Your task to perform on an android device: Search for rayovac triple a on newegg, select the first entry, and add it to the cart. Image 0: 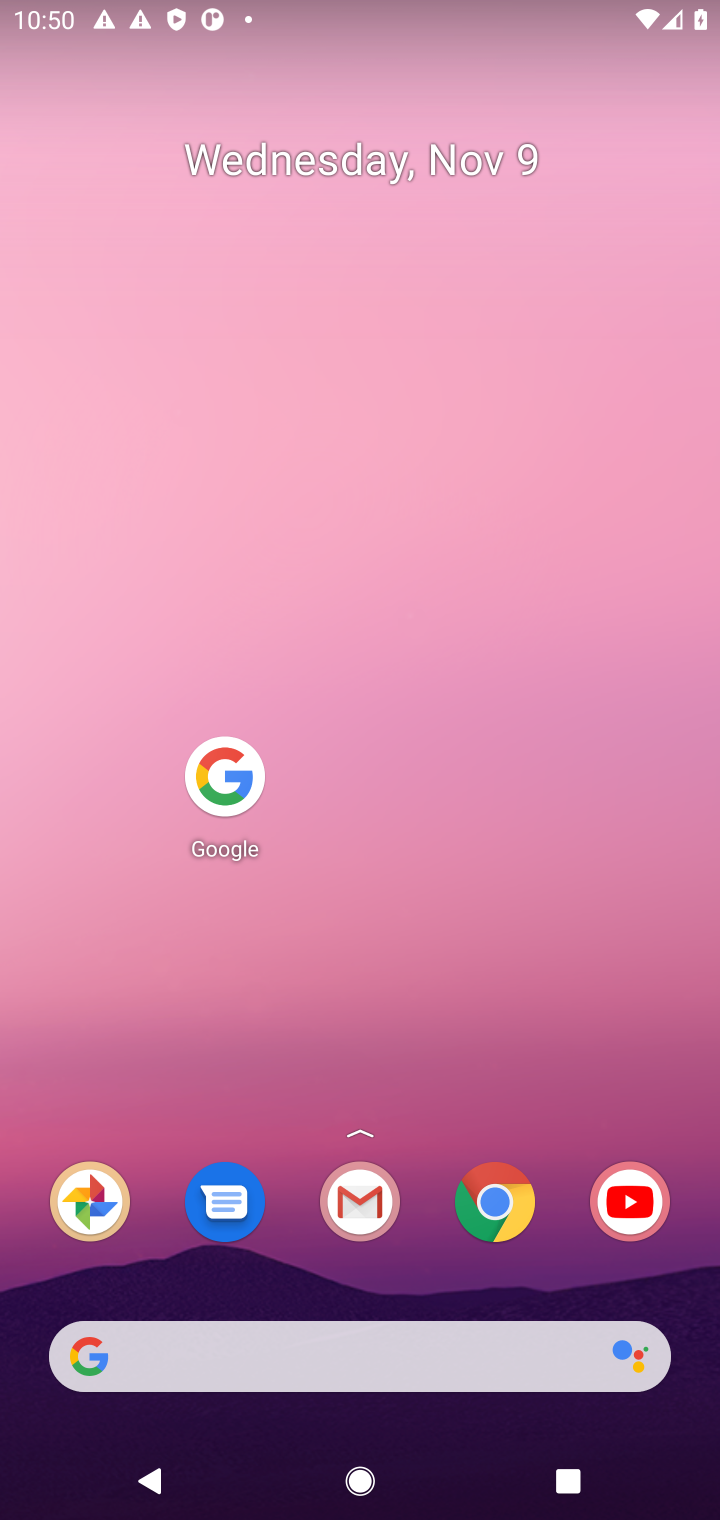
Step 0: press home button
Your task to perform on an android device: Search for rayovac triple a on newegg, select the first entry, and add it to the cart. Image 1: 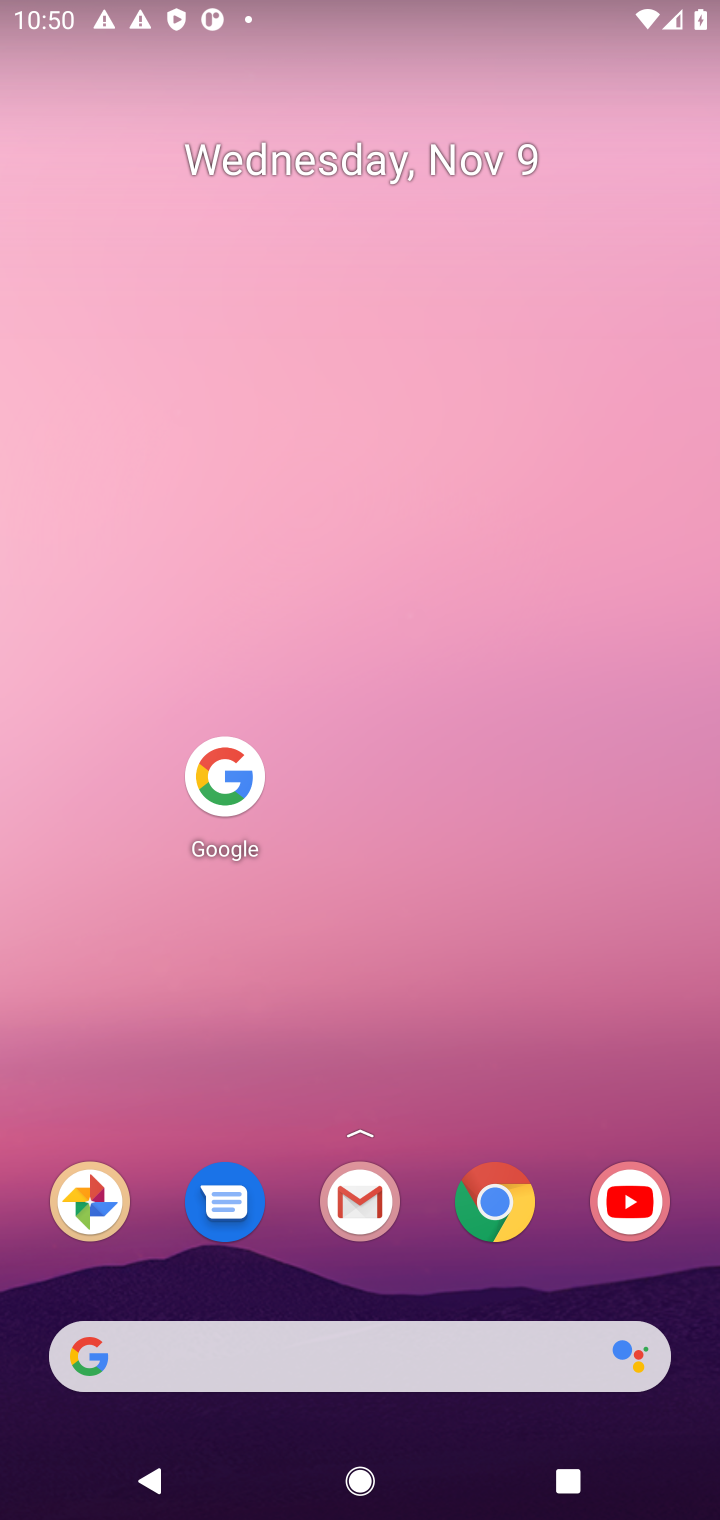
Step 1: click (222, 780)
Your task to perform on an android device: Search for rayovac triple a on newegg, select the first entry, and add it to the cart. Image 2: 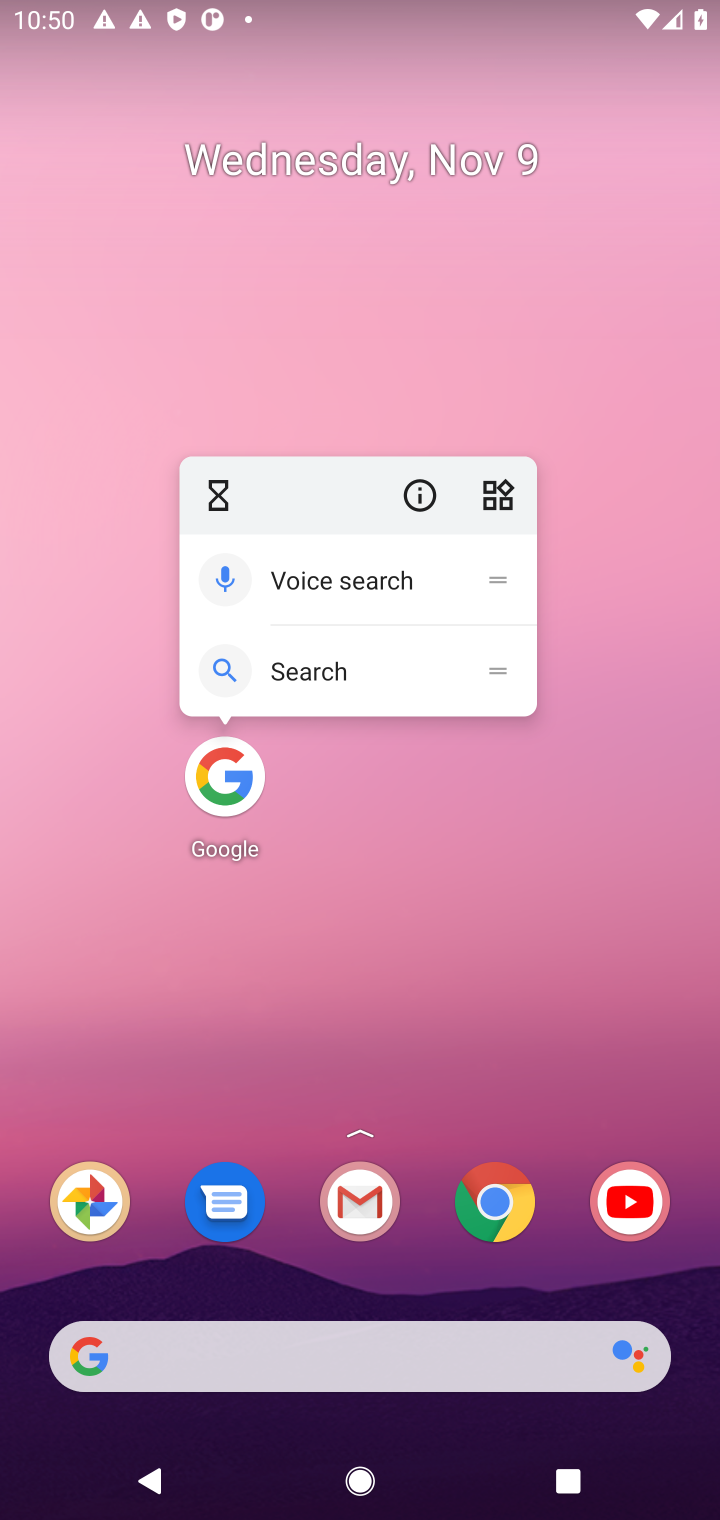
Step 2: click (222, 782)
Your task to perform on an android device: Search for rayovac triple a on newegg, select the first entry, and add it to the cart. Image 3: 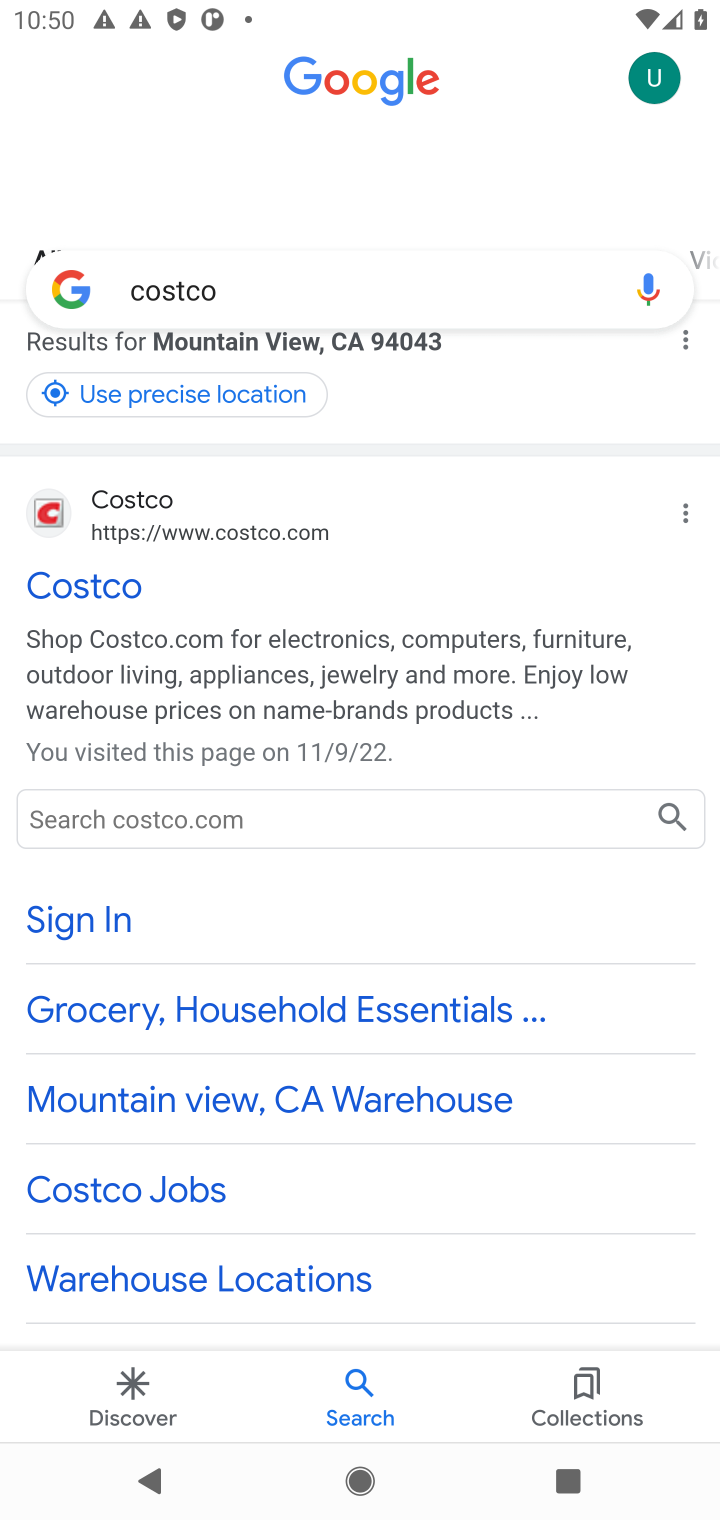
Step 3: click (257, 297)
Your task to perform on an android device: Search for rayovac triple a on newegg, select the first entry, and add it to the cart. Image 4: 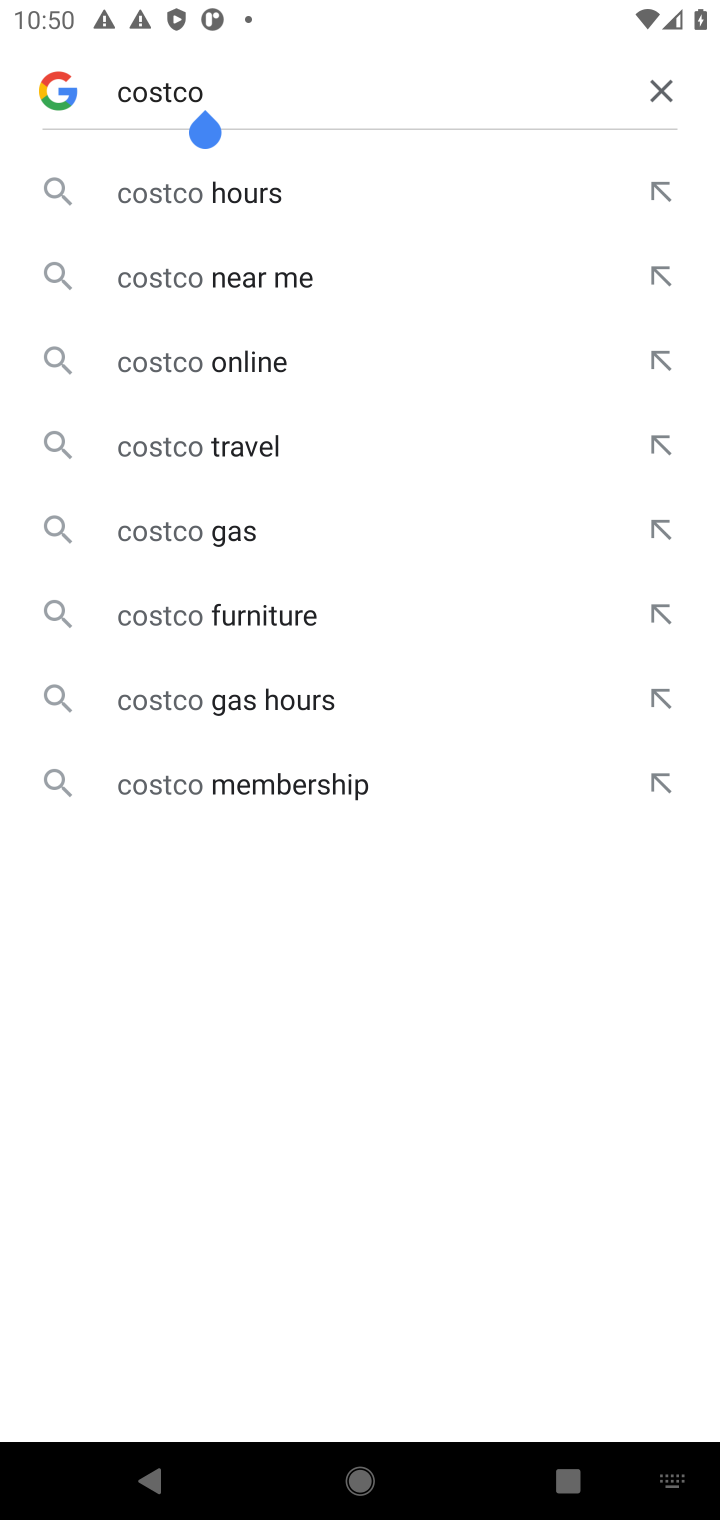
Step 4: click (654, 75)
Your task to perform on an android device: Search for rayovac triple a on newegg, select the first entry, and add it to the cart. Image 5: 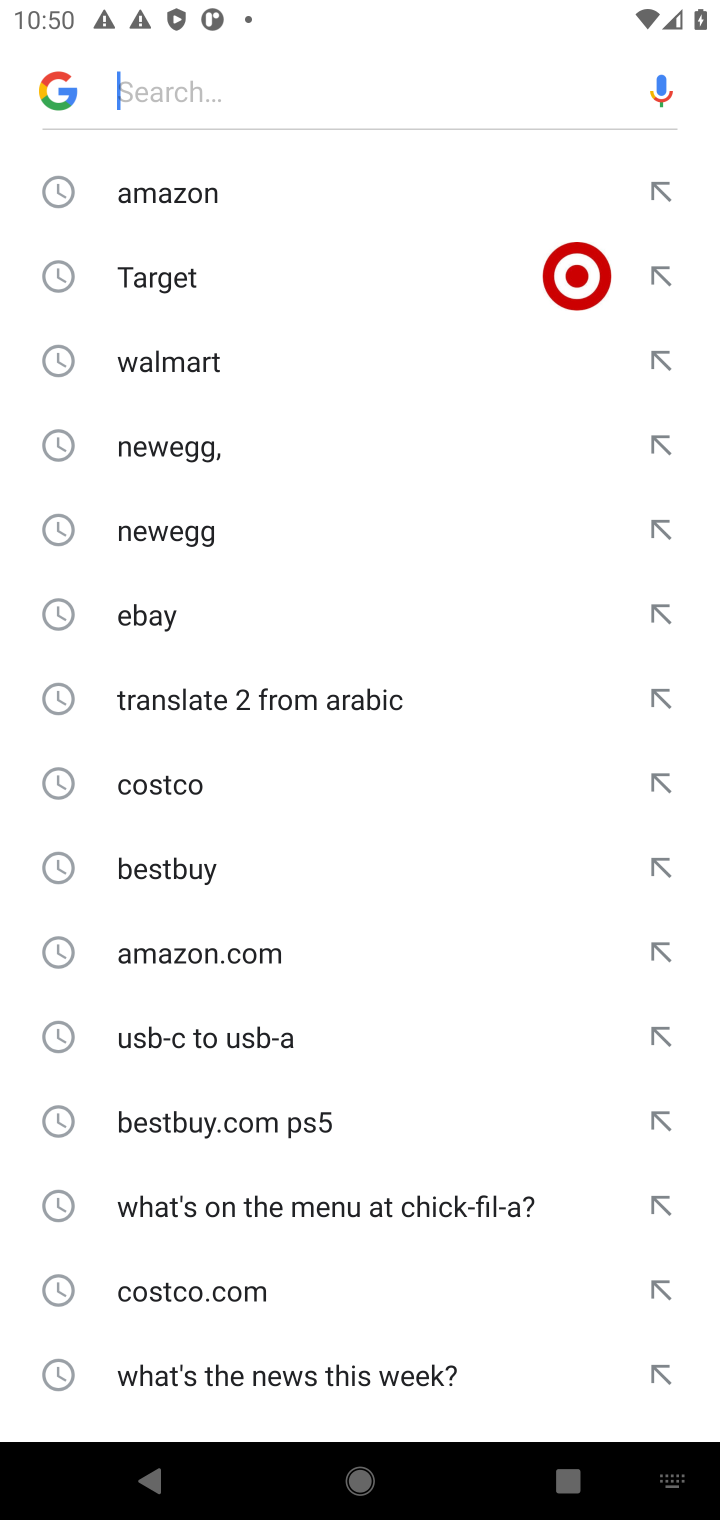
Step 5: click (134, 527)
Your task to perform on an android device: Search for rayovac triple a on newegg, select the first entry, and add it to the cart. Image 6: 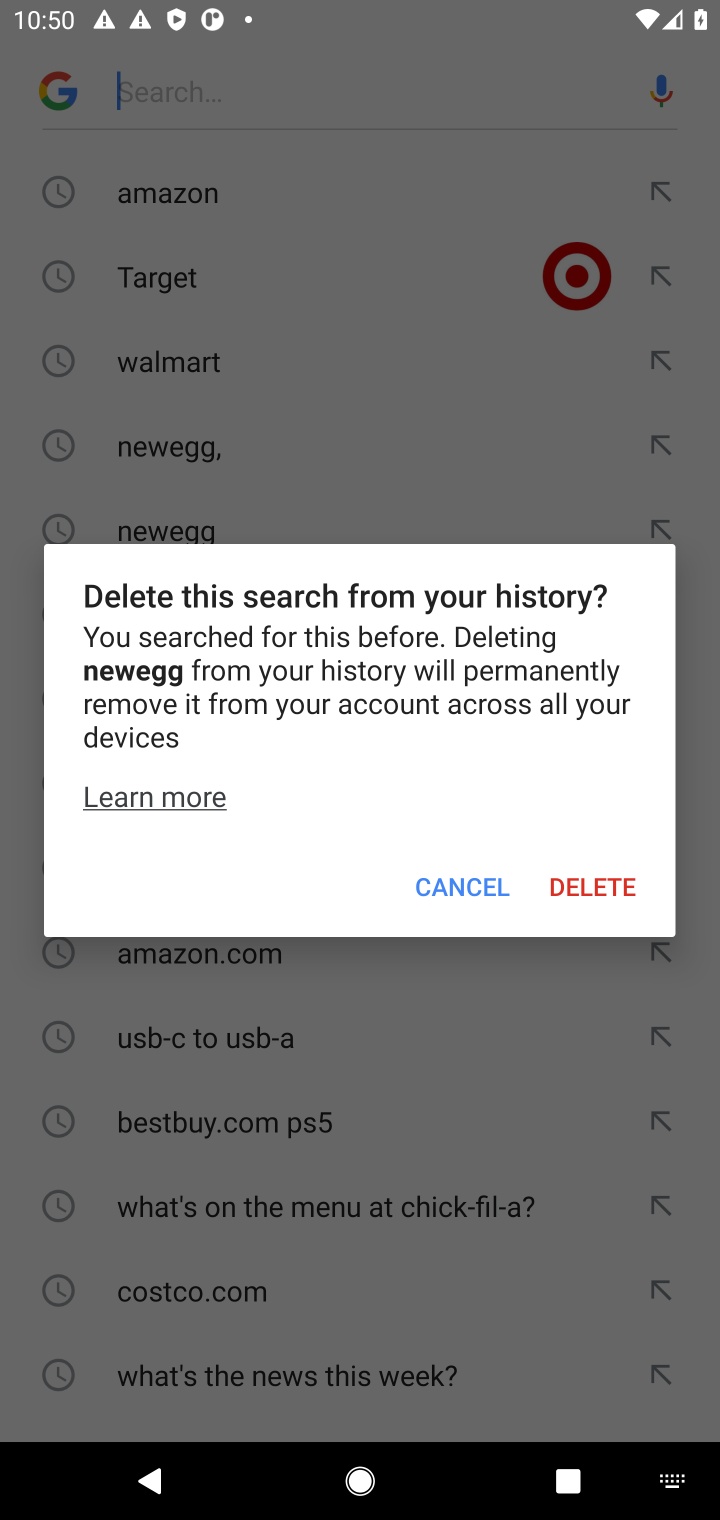
Step 6: click (128, 525)
Your task to perform on an android device: Search for rayovac triple a on newegg, select the first entry, and add it to the cart. Image 7: 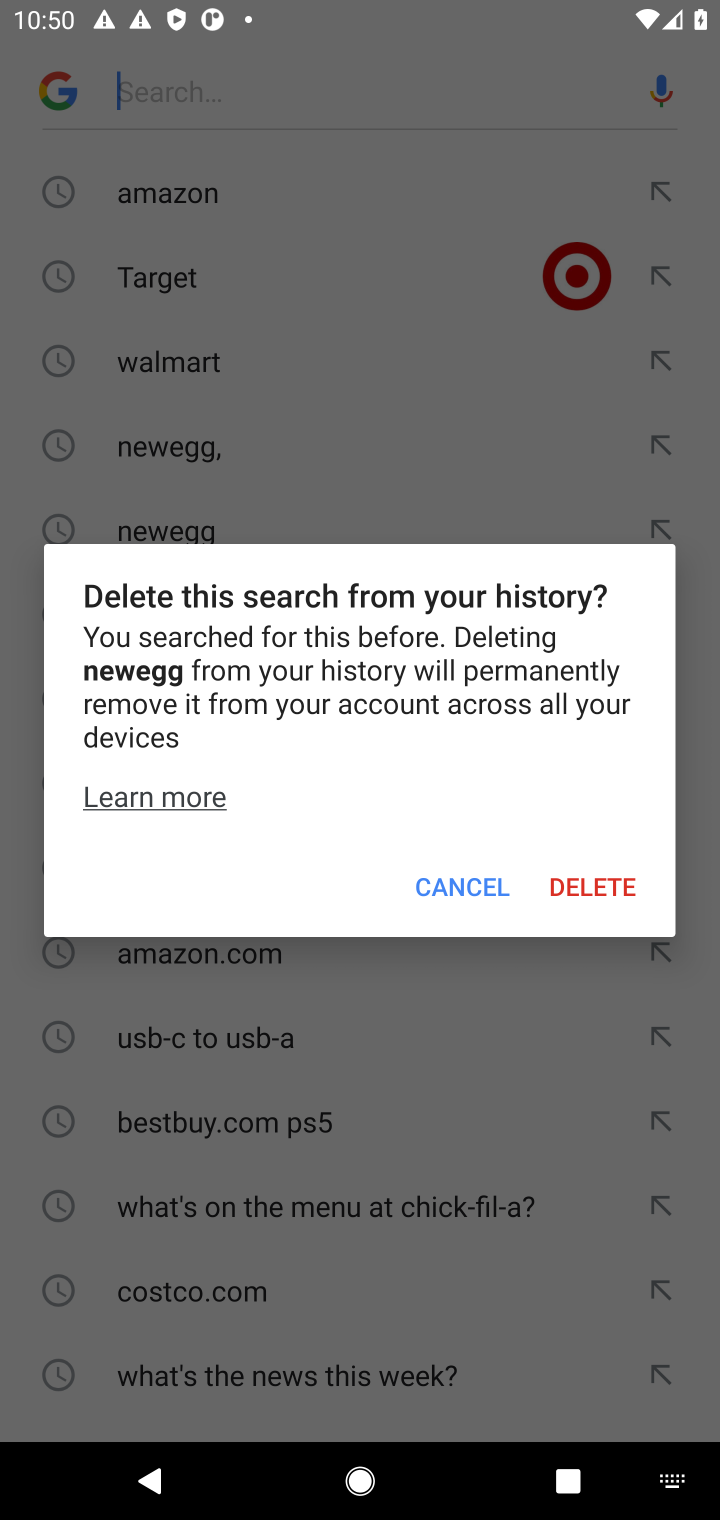
Step 7: click (155, 533)
Your task to perform on an android device: Search for rayovac triple a on newegg, select the first entry, and add it to the cart. Image 8: 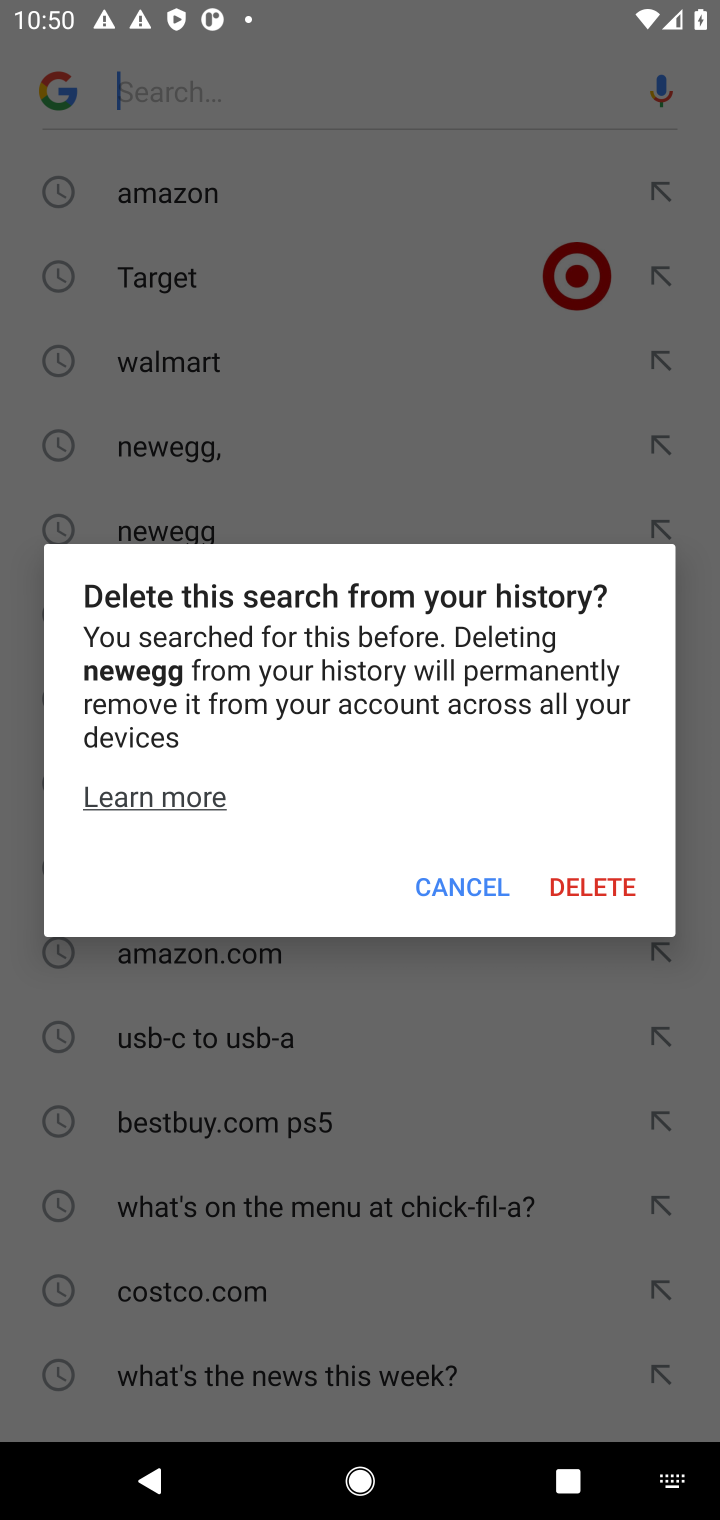
Step 8: click (468, 883)
Your task to perform on an android device: Search for rayovac triple a on newegg, select the first entry, and add it to the cart. Image 9: 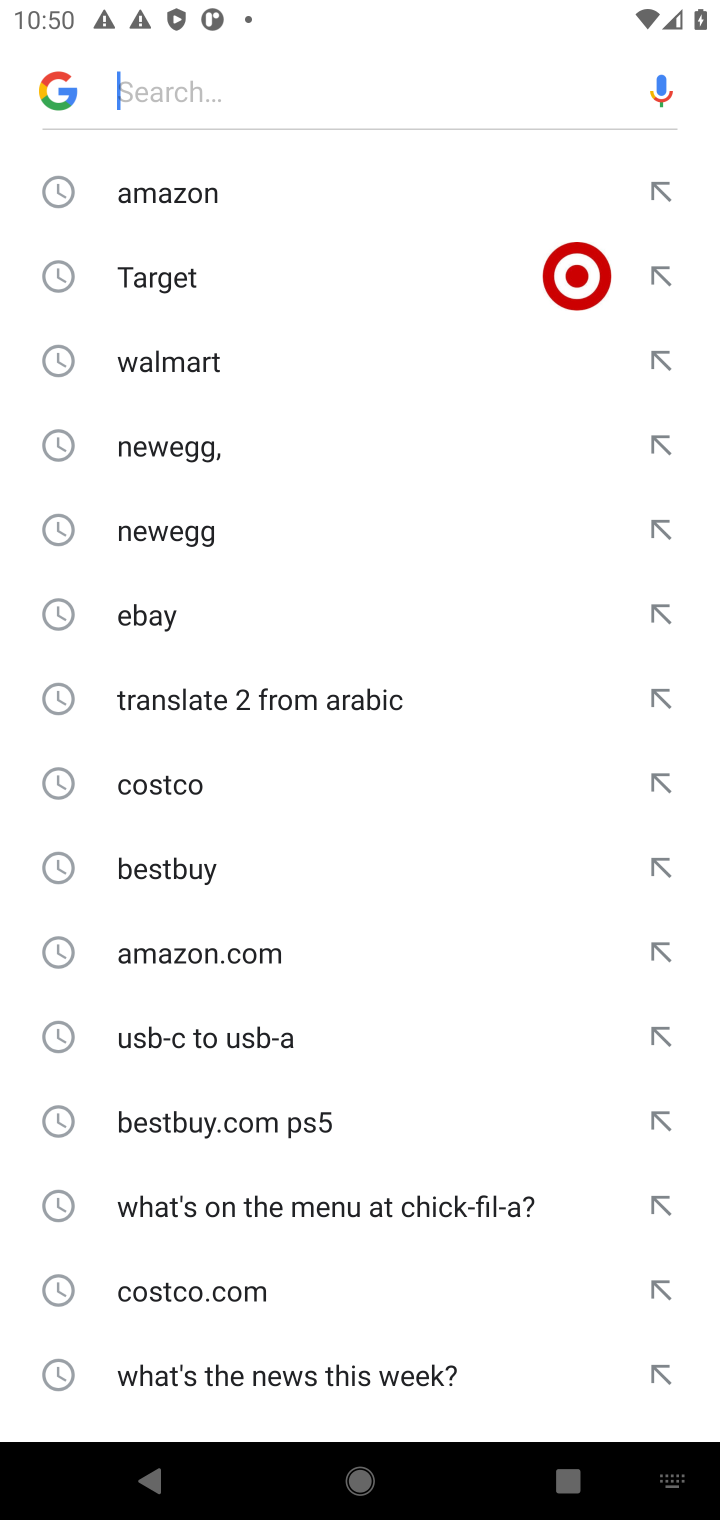
Step 9: click (155, 513)
Your task to perform on an android device: Search for rayovac triple a on newegg, select the first entry, and add it to the cart. Image 10: 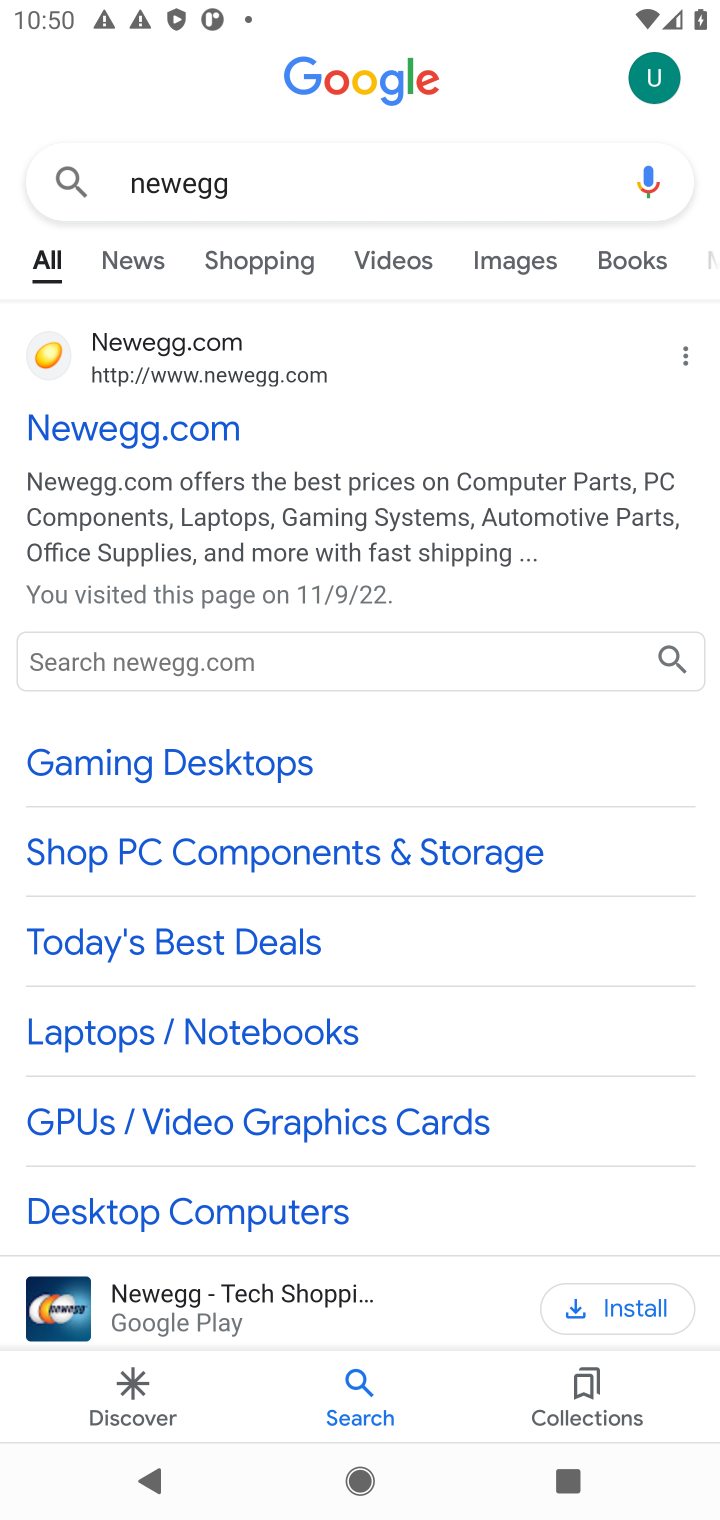
Step 10: click (110, 428)
Your task to perform on an android device: Search for rayovac triple a on newegg, select the first entry, and add it to the cart. Image 11: 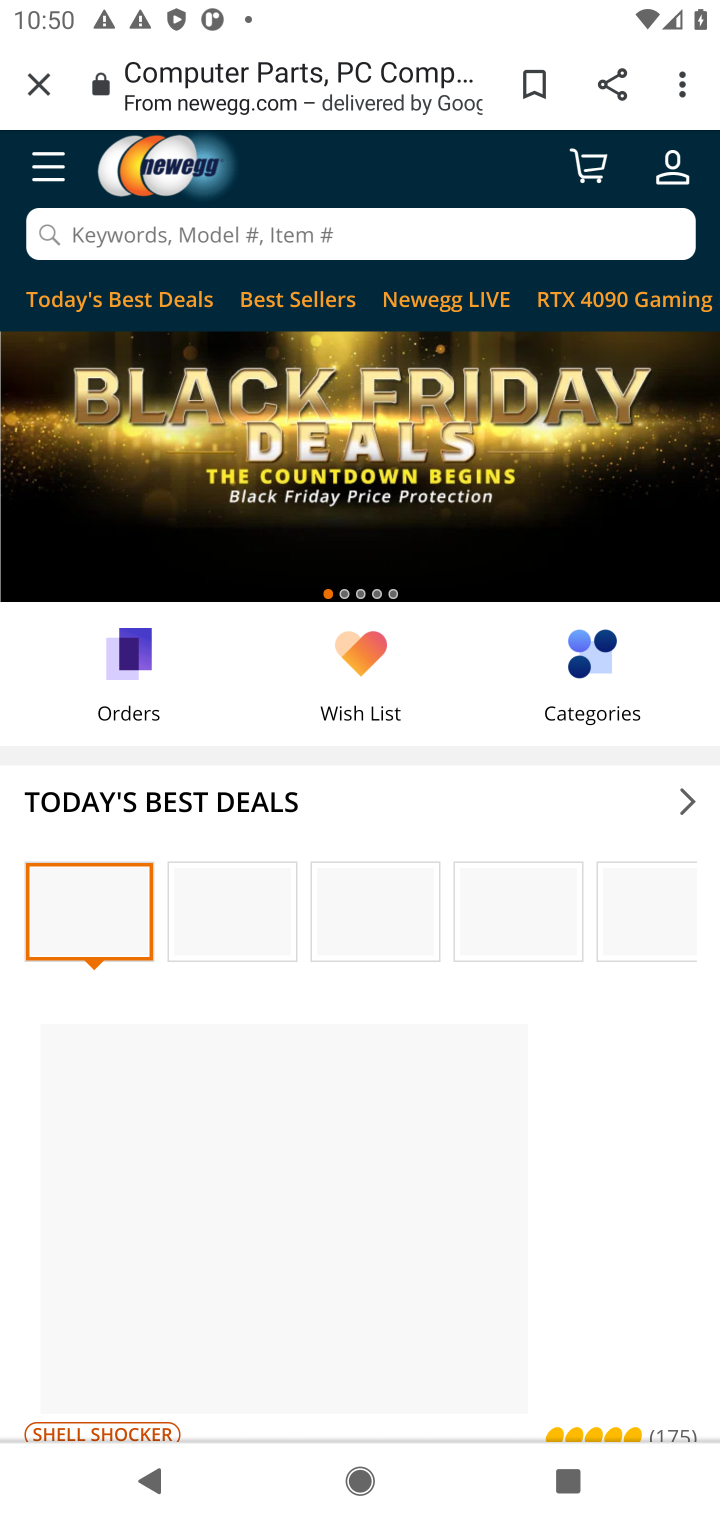
Step 11: click (396, 210)
Your task to perform on an android device: Search for rayovac triple a on newegg, select the first entry, and add it to the cart. Image 12: 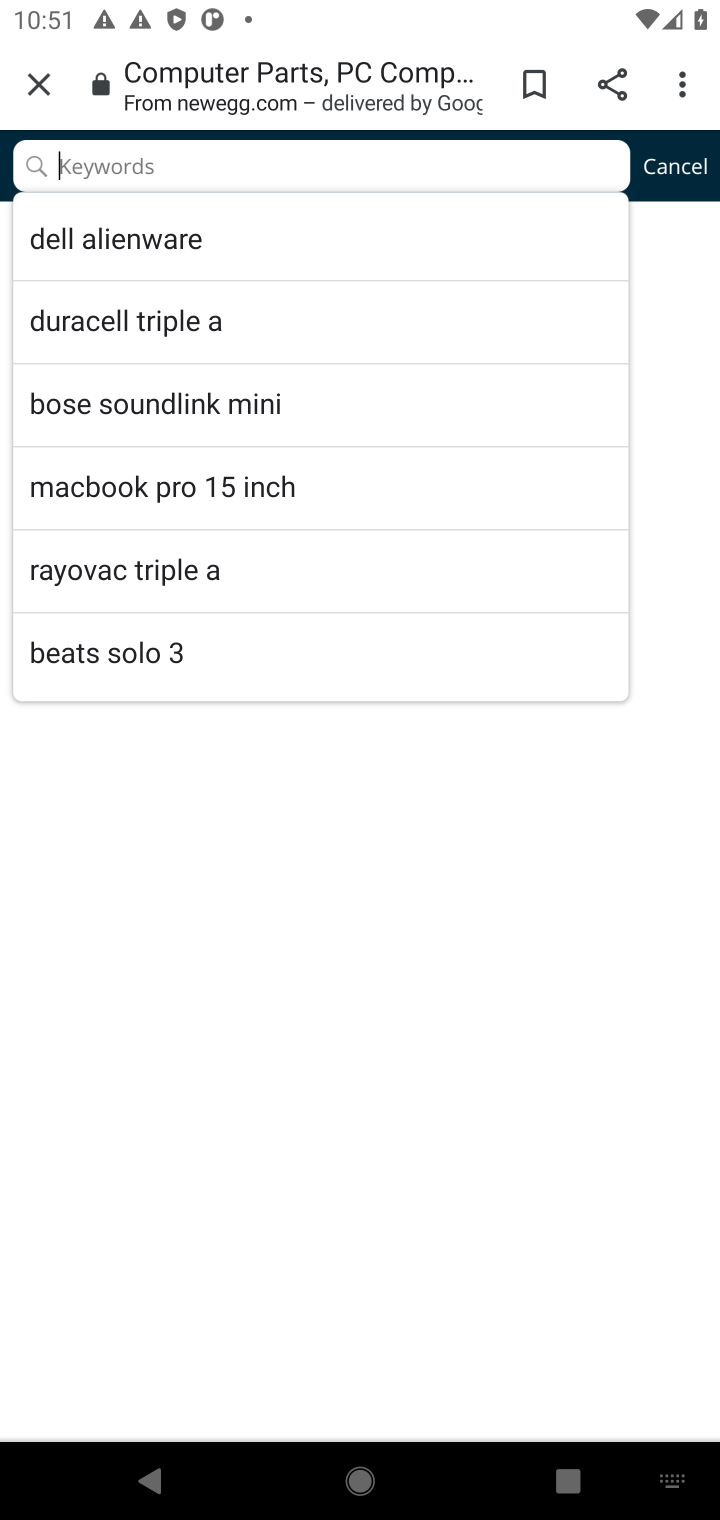
Step 12: type "rayovac triple a"
Your task to perform on an android device: Search for rayovac triple a on newegg, select the first entry, and add it to the cart. Image 13: 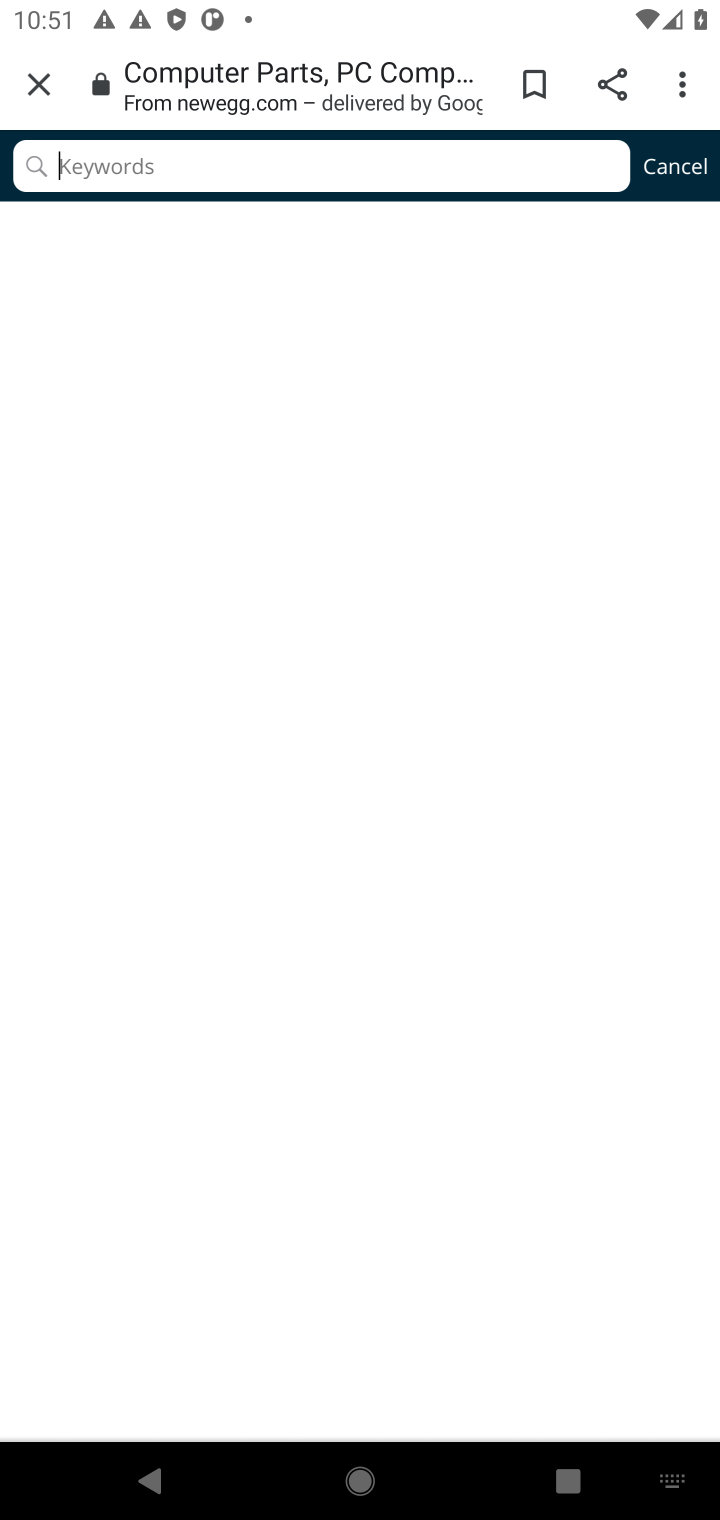
Step 13: press enter
Your task to perform on an android device: Search for rayovac triple a on newegg, select the first entry, and add it to the cart. Image 14: 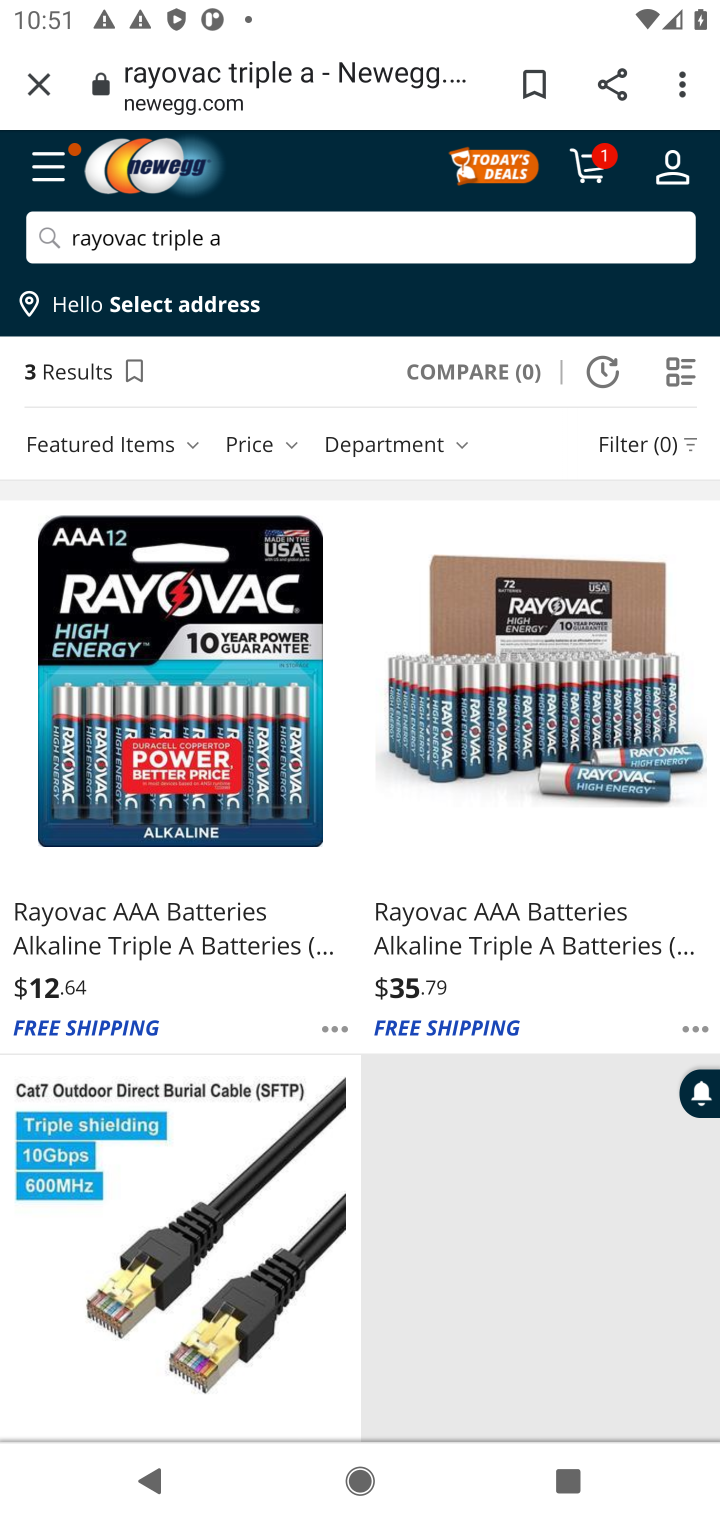
Step 14: click (50, 753)
Your task to perform on an android device: Search for rayovac triple a on newegg, select the first entry, and add it to the cart. Image 15: 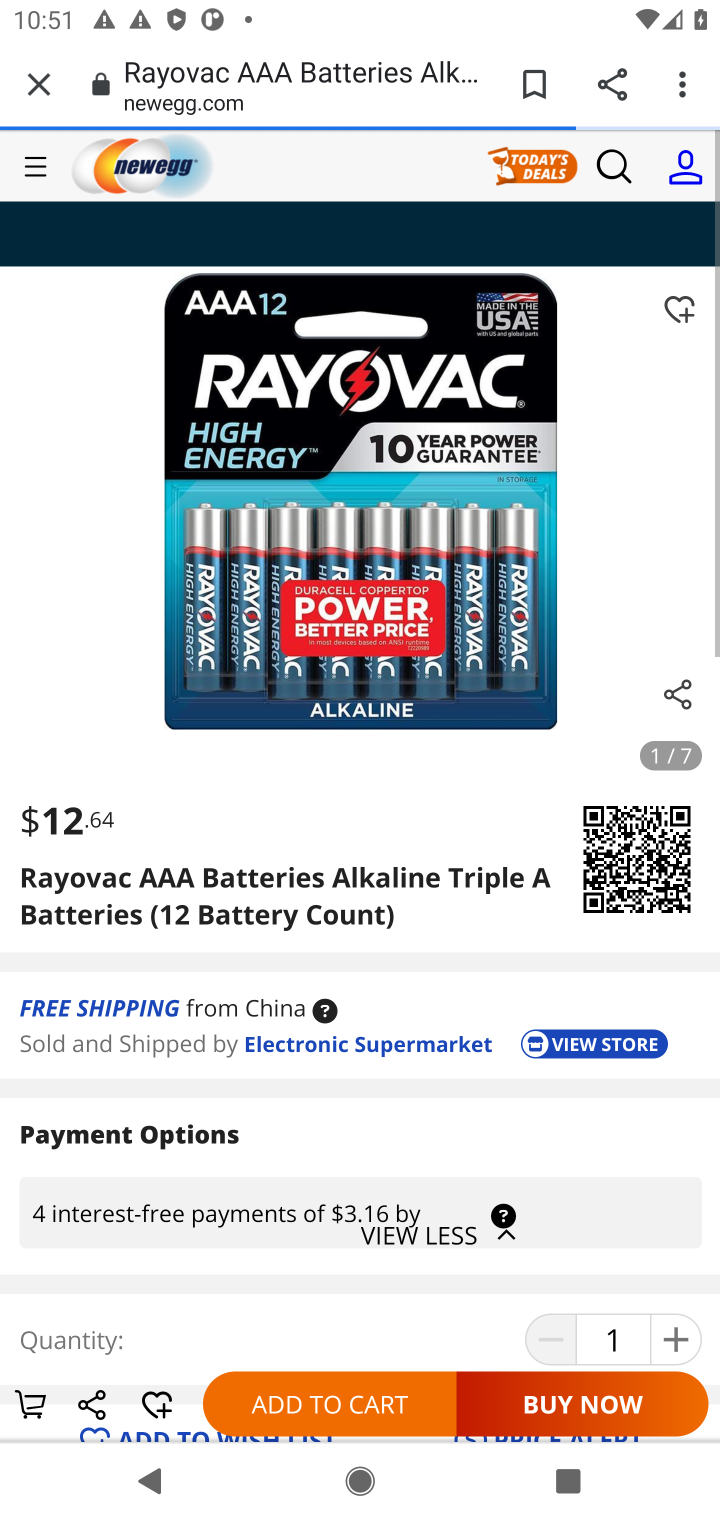
Step 15: click (154, 664)
Your task to perform on an android device: Search for rayovac triple a on newegg, select the first entry, and add it to the cart. Image 16: 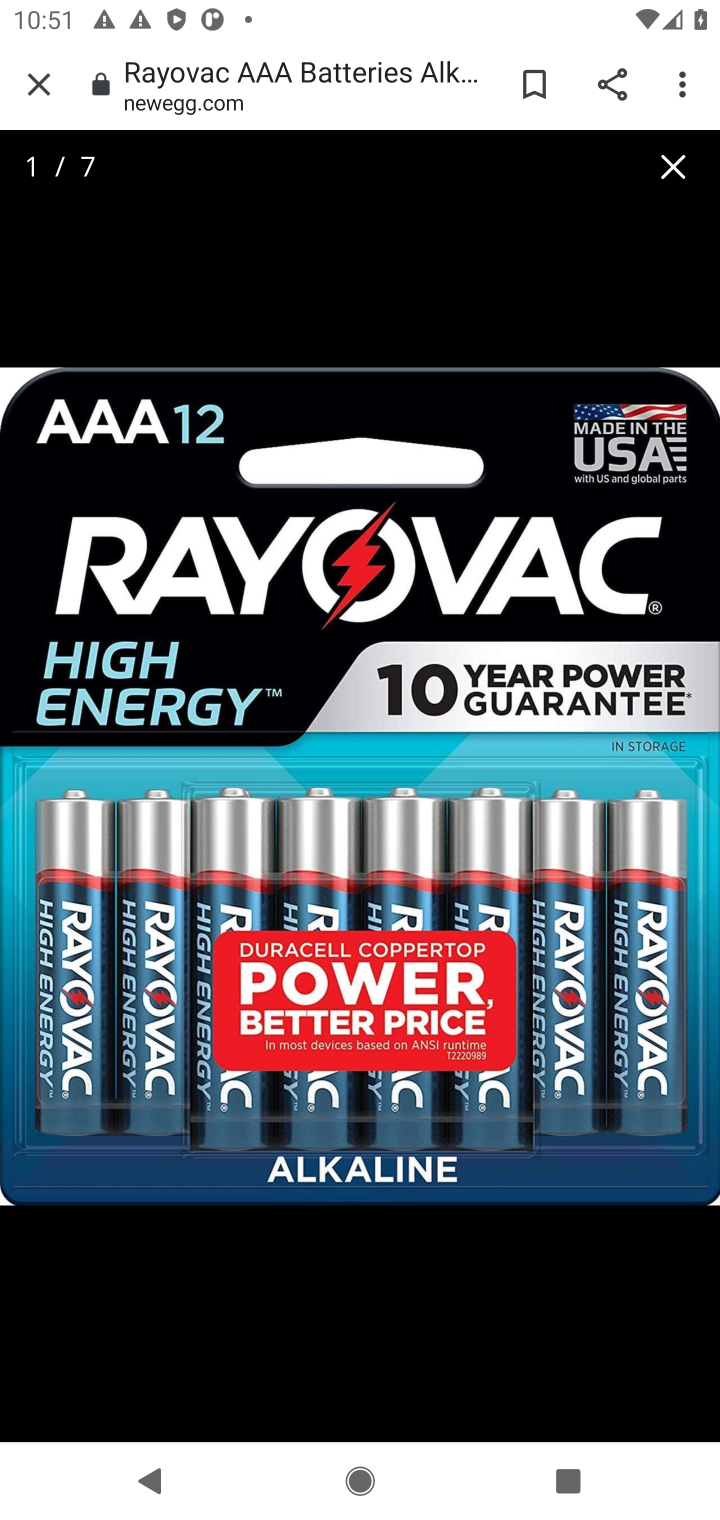
Step 16: click (675, 166)
Your task to perform on an android device: Search for rayovac triple a on newegg, select the first entry, and add it to the cart. Image 17: 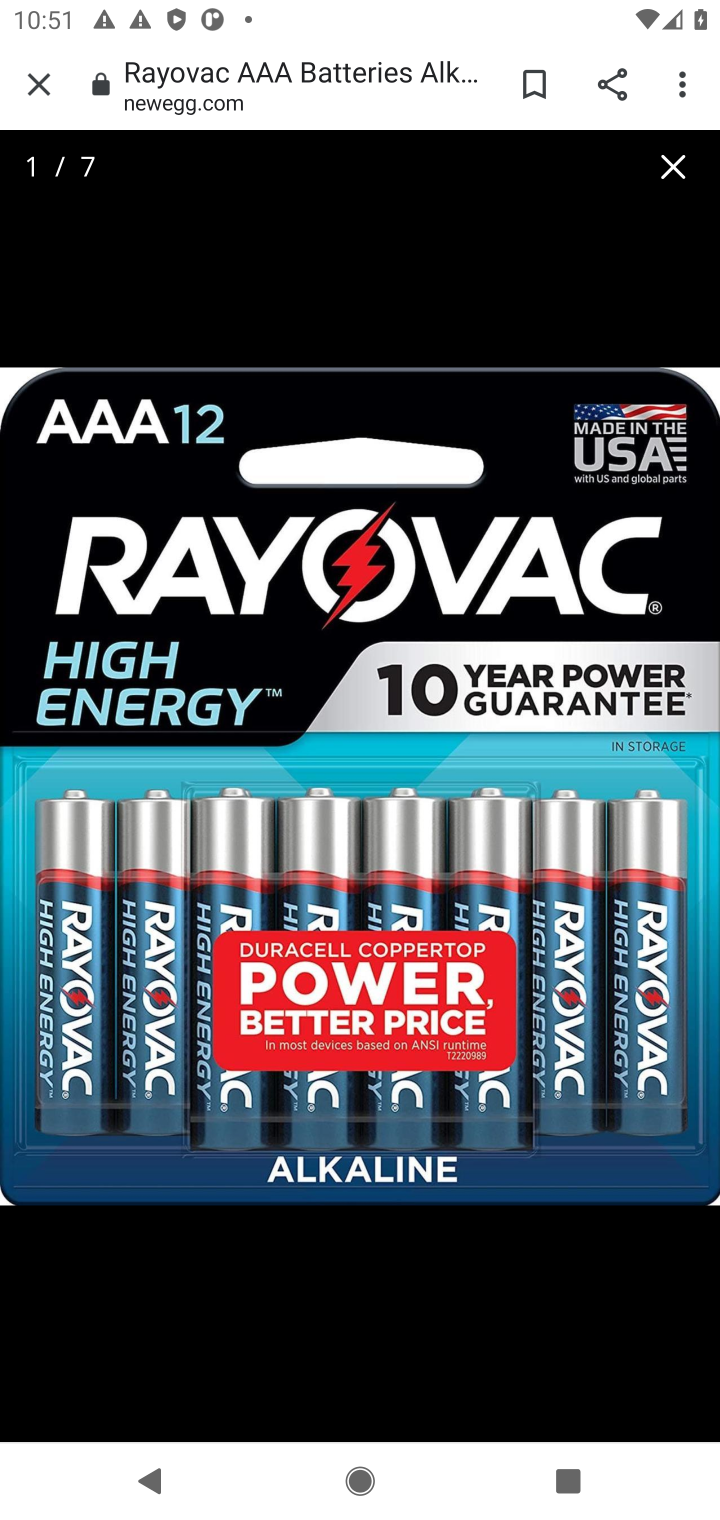
Step 17: press back button
Your task to perform on an android device: Search for rayovac triple a on newegg, select the first entry, and add it to the cart. Image 18: 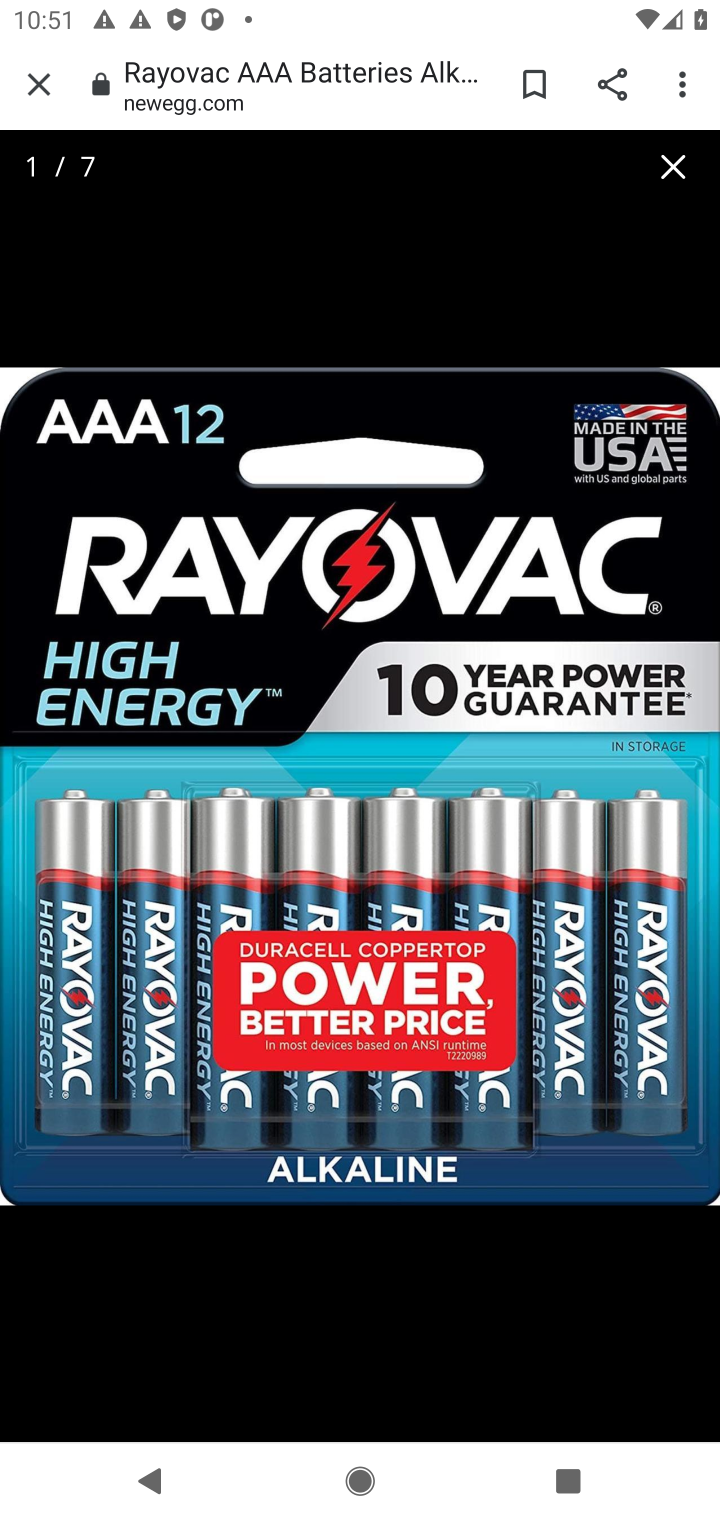
Step 18: press back button
Your task to perform on an android device: Search for rayovac triple a on newegg, select the first entry, and add it to the cart. Image 19: 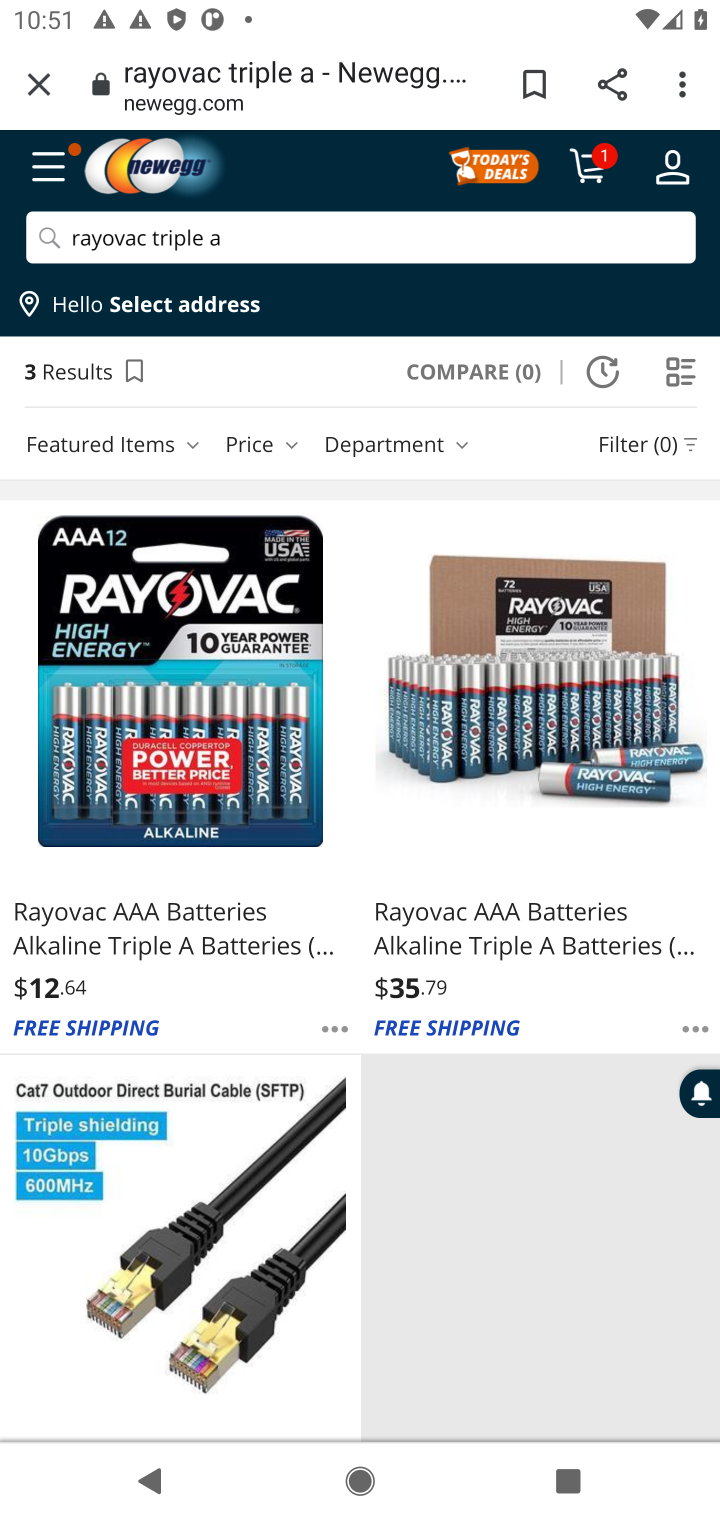
Step 19: click (62, 740)
Your task to perform on an android device: Search for rayovac triple a on newegg, select the first entry, and add it to the cart. Image 20: 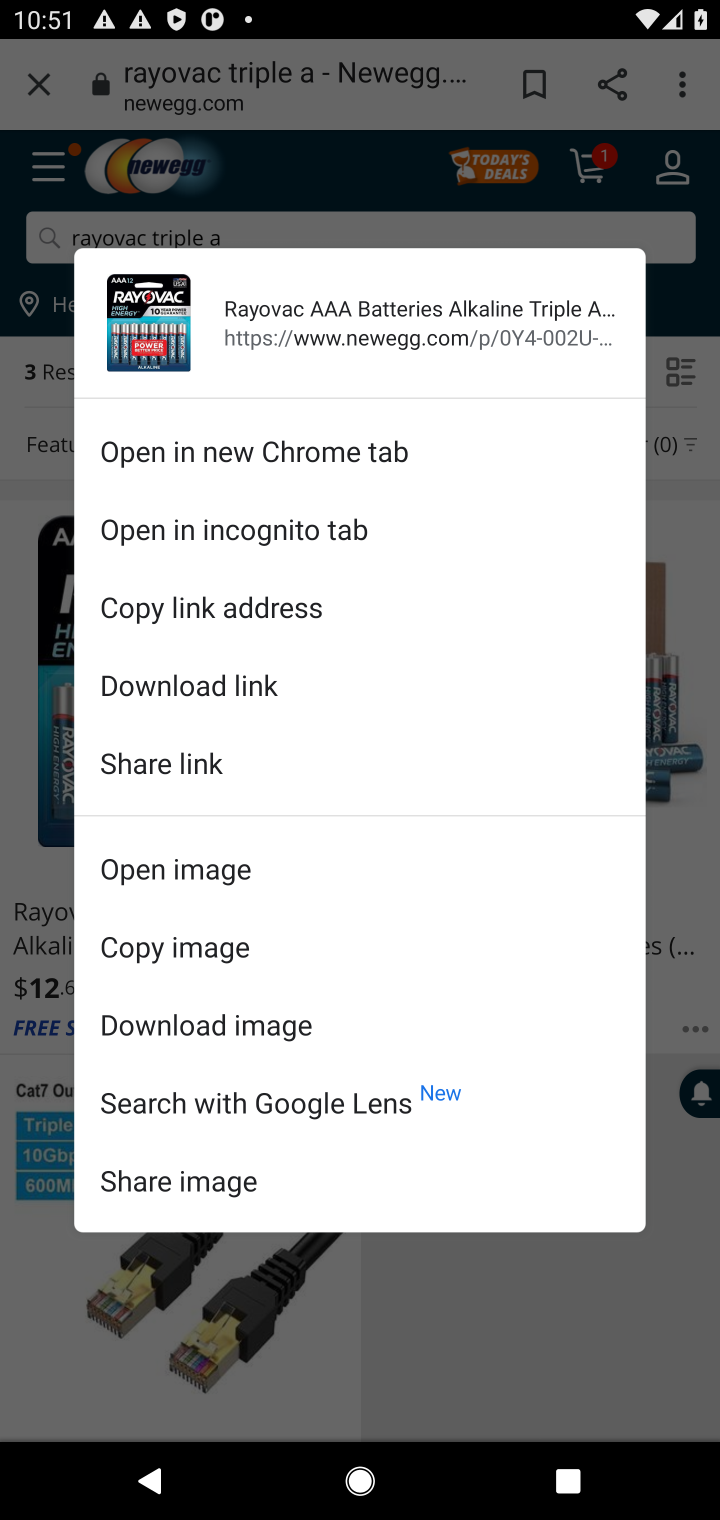
Step 20: click (55, 704)
Your task to perform on an android device: Search for rayovac triple a on newegg, select the first entry, and add it to the cart. Image 21: 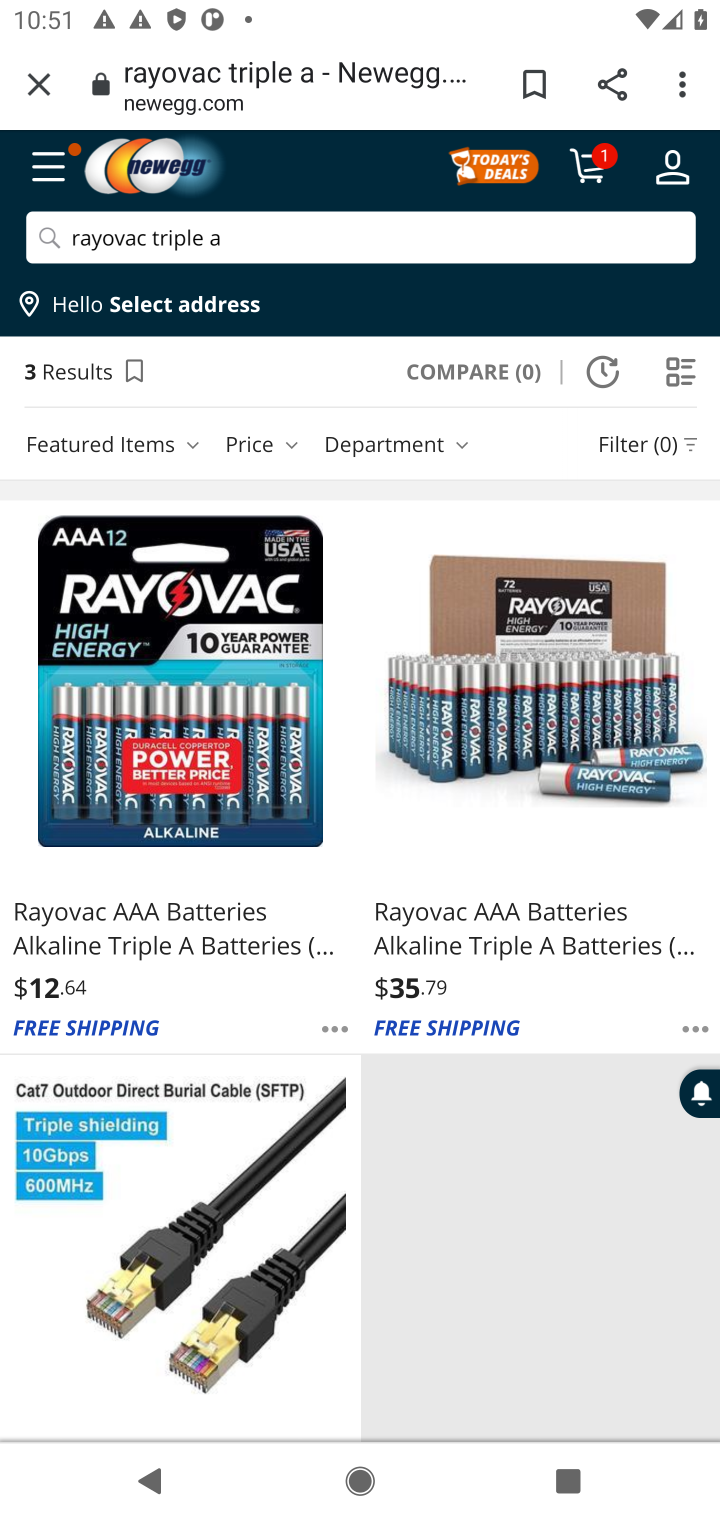
Step 21: click (164, 718)
Your task to perform on an android device: Search for rayovac triple a on newegg, select the first entry, and add it to the cart. Image 22: 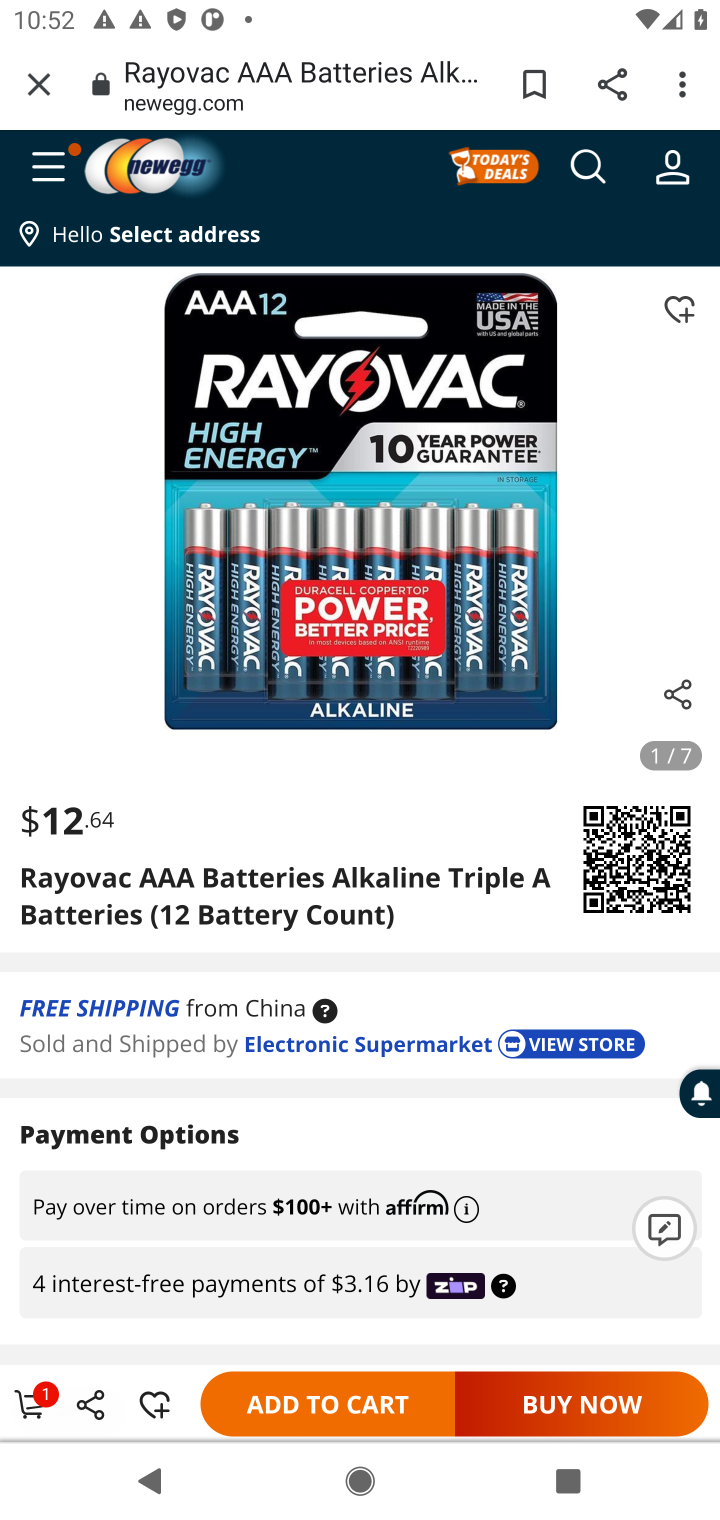
Step 22: click (335, 1399)
Your task to perform on an android device: Search for rayovac triple a on newegg, select the first entry, and add it to the cart. Image 23: 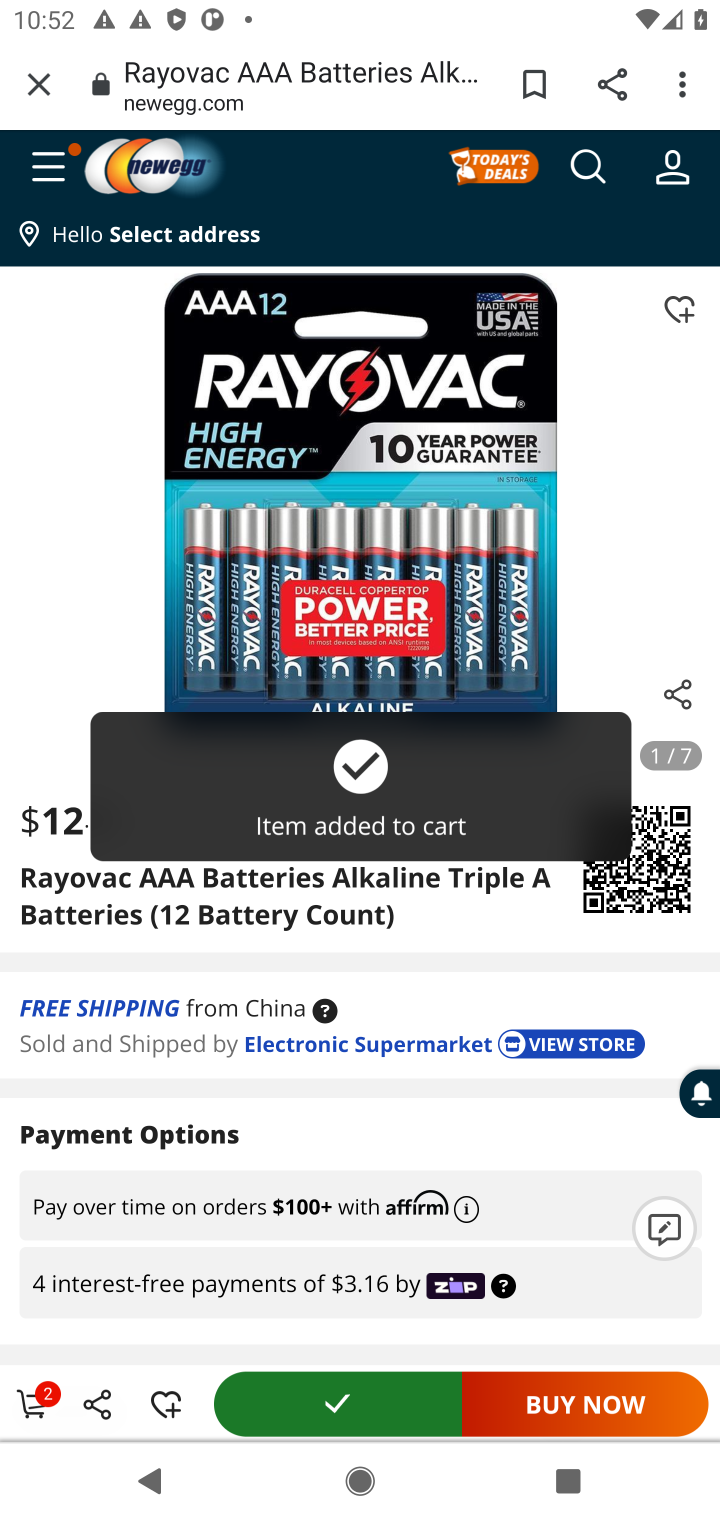
Step 23: click (30, 1405)
Your task to perform on an android device: Search for rayovac triple a on newegg, select the first entry, and add it to the cart. Image 24: 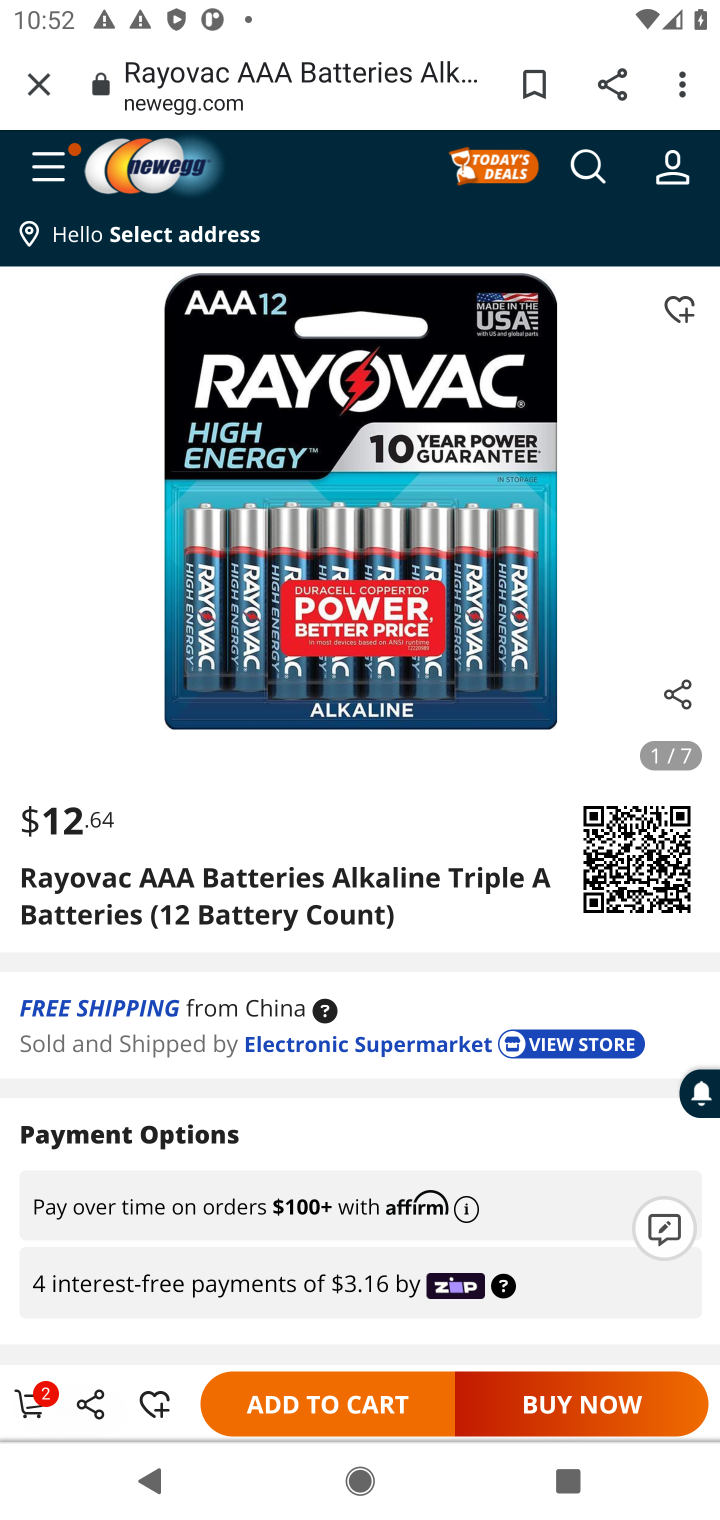
Step 24: click (22, 1397)
Your task to perform on an android device: Search for rayovac triple a on newegg, select the first entry, and add it to the cart. Image 25: 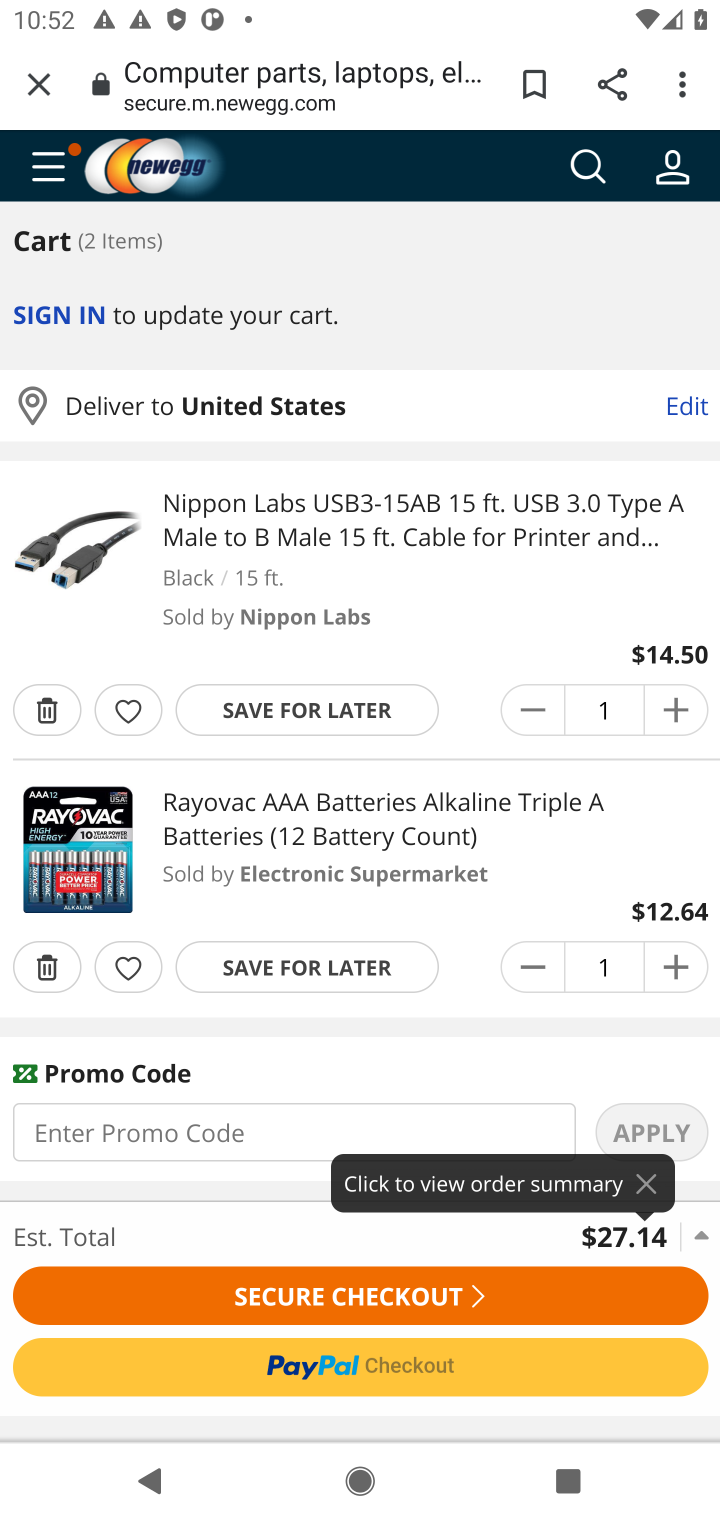
Step 25: click (51, 706)
Your task to perform on an android device: Search for rayovac triple a on newegg, select the first entry, and add it to the cart. Image 26: 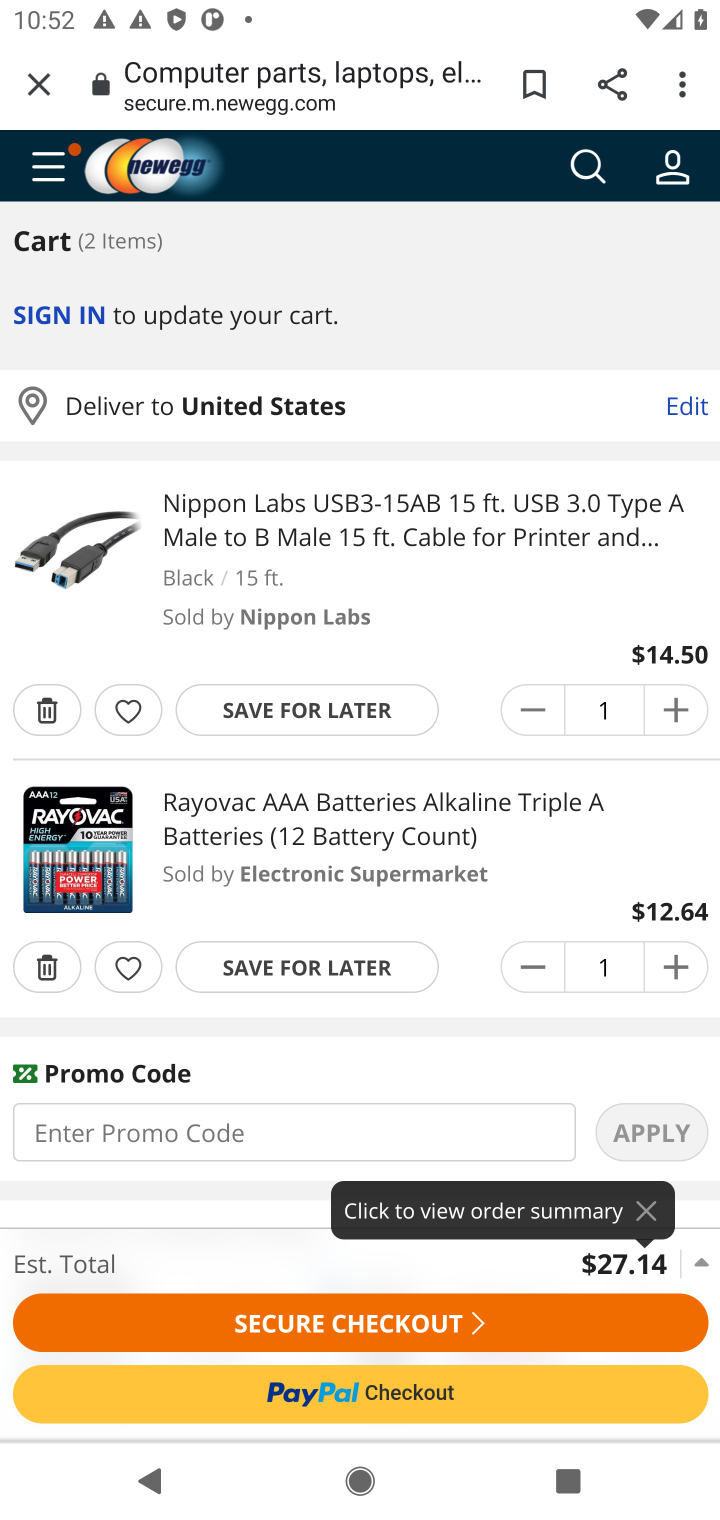
Step 26: click (40, 707)
Your task to perform on an android device: Search for rayovac triple a on newegg, select the first entry, and add it to the cart. Image 27: 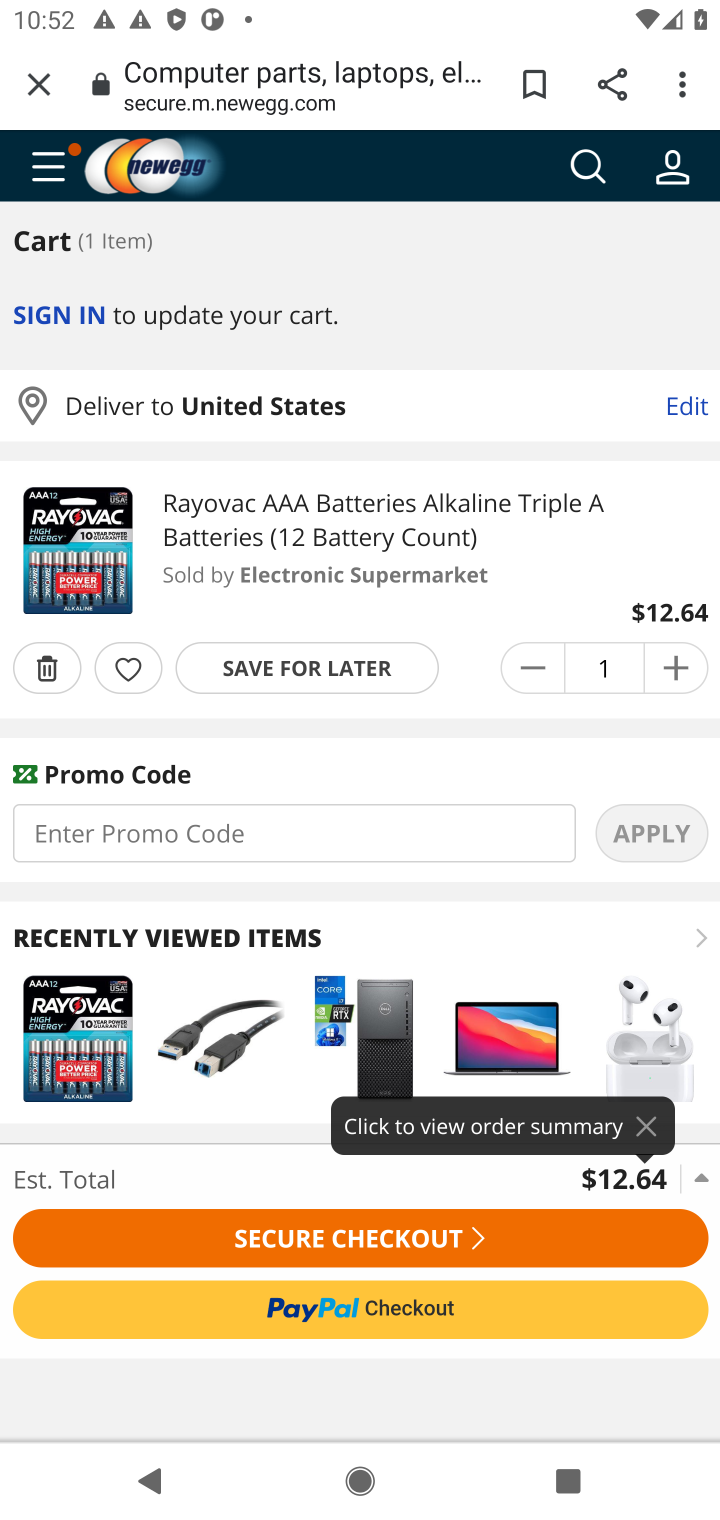
Step 27: task complete